Your task to perform on an android device: set the stopwatch Image 0: 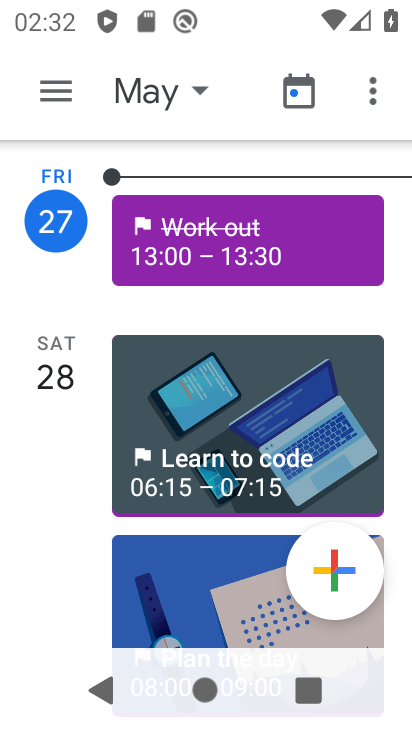
Step 0: press home button
Your task to perform on an android device: set the stopwatch Image 1: 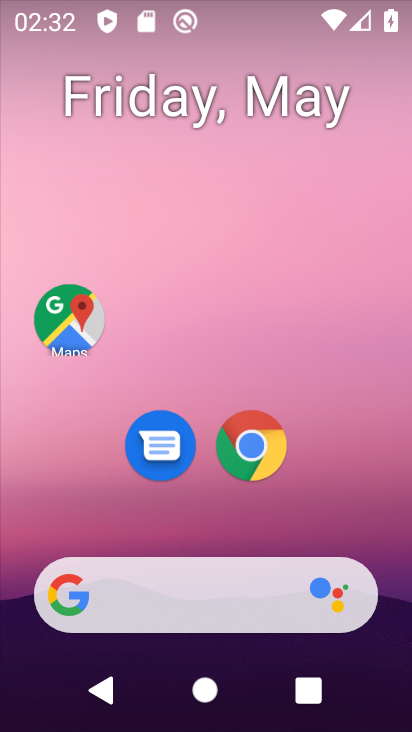
Step 1: drag from (174, 559) to (390, 0)
Your task to perform on an android device: set the stopwatch Image 2: 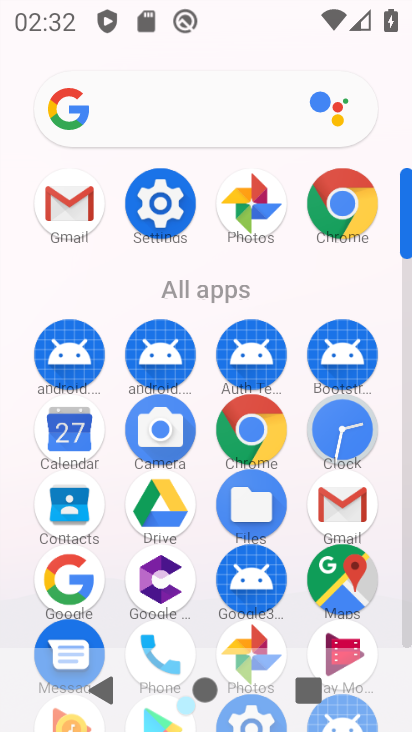
Step 2: click (368, 442)
Your task to perform on an android device: set the stopwatch Image 3: 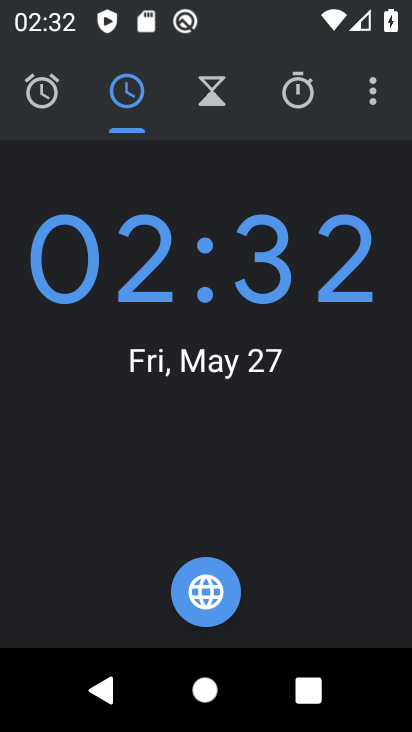
Step 3: click (299, 98)
Your task to perform on an android device: set the stopwatch Image 4: 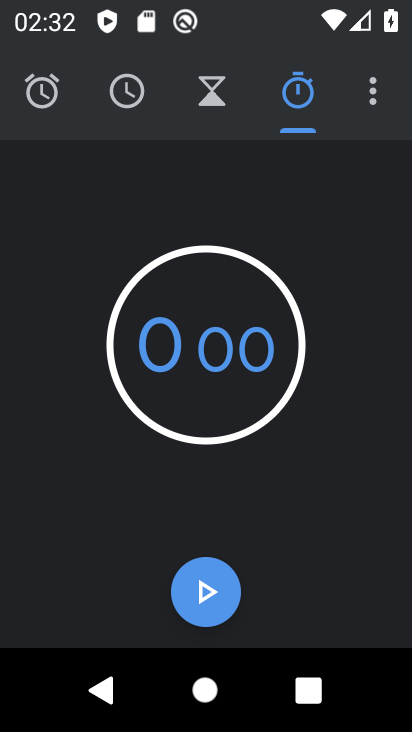
Step 4: click (219, 600)
Your task to perform on an android device: set the stopwatch Image 5: 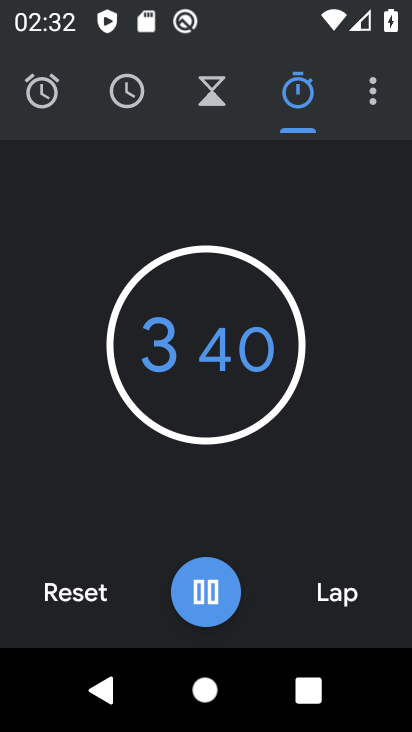
Step 5: task complete